Your task to perform on an android device: Go to Amazon Image 0: 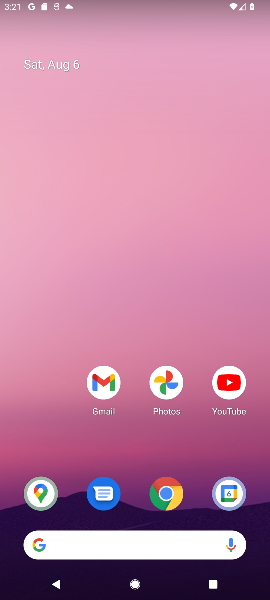
Step 0: drag from (142, 464) to (258, 381)
Your task to perform on an android device: Go to Amazon Image 1: 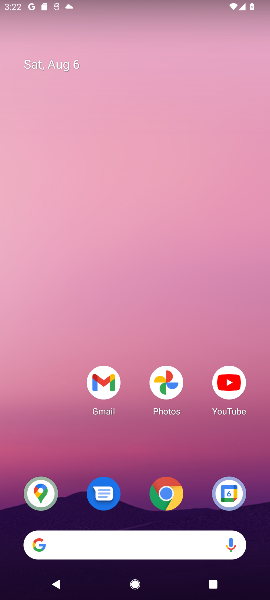
Step 1: drag from (162, 496) to (128, 155)
Your task to perform on an android device: Go to Amazon Image 2: 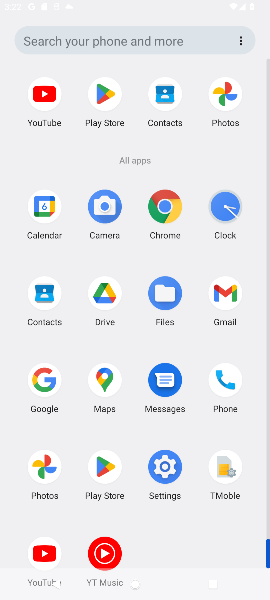
Step 2: drag from (134, 428) to (87, 140)
Your task to perform on an android device: Go to Amazon Image 3: 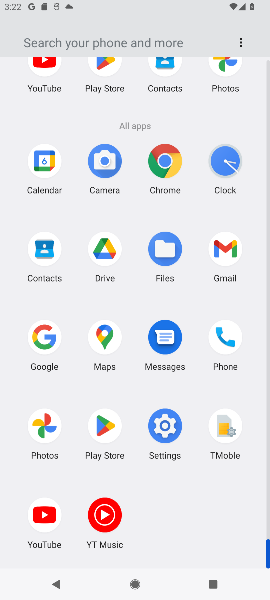
Step 3: drag from (143, 477) to (104, 134)
Your task to perform on an android device: Go to Amazon Image 4: 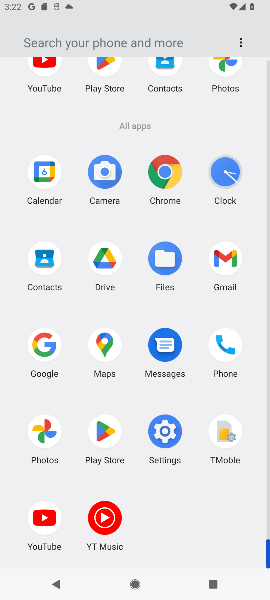
Step 4: click (169, 174)
Your task to perform on an android device: Go to Amazon Image 5: 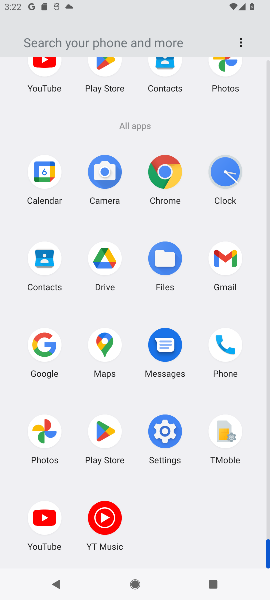
Step 5: click (169, 174)
Your task to perform on an android device: Go to Amazon Image 6: 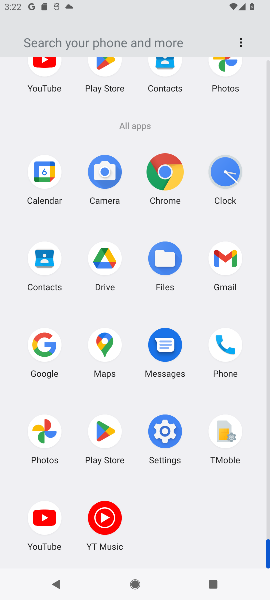
Step 6: click (169, 174)
Your task to perform on an android device: Go to Amazon Image 7: 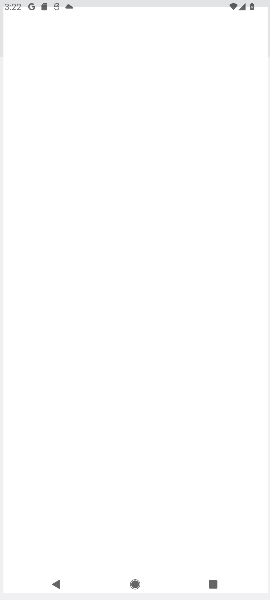
Step 7: click (169, 174)
Your task to perform on an android device: Go to Amazon Image 8: 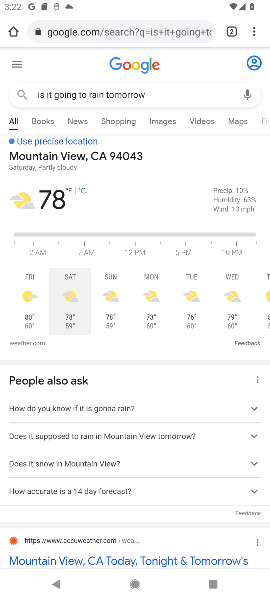
Step 8: drag from (250, 31) to (168, 96)
Your task to perform on an android device: Go to Amazon Image 9: 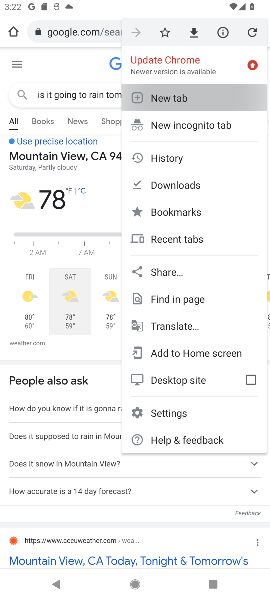
Step 9: click (168, 97)
Your task to perform on an android device: Go to Amazon Image 10: 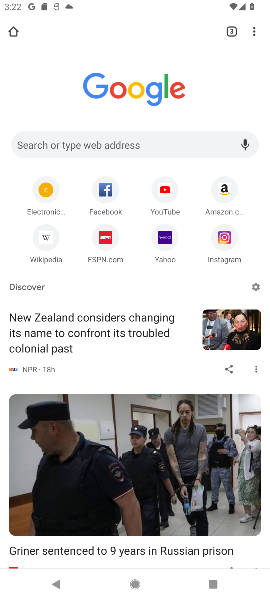
Step 10: click (223, 180)
Your task to perform on an android device: Go to Amazon Image 11: 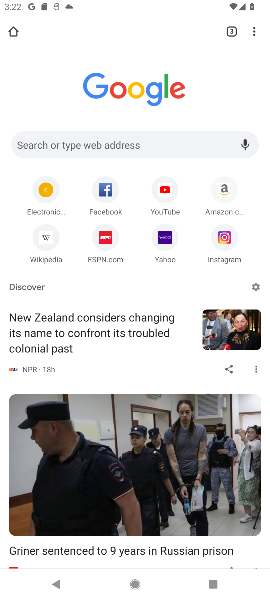
Step 11: click (223, 193)
Your task to perform on an android device: Go to Amazon Image 12: 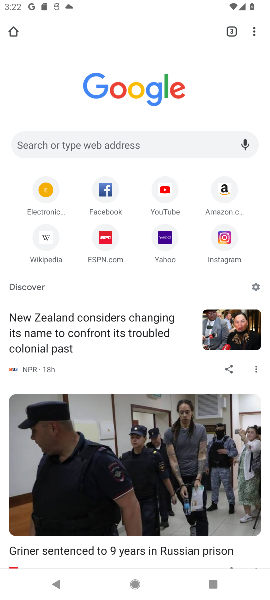
Step 12: click (223, 193)
Your task to perform on an android device: Go to Amazon Image 13: 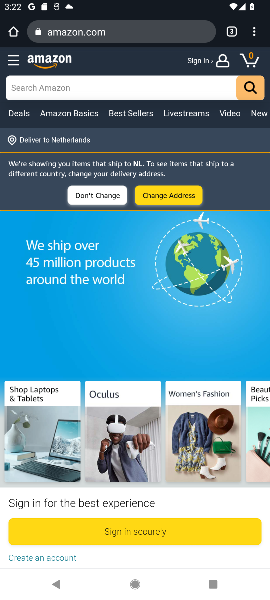
Step 13: task complete